Your task to perform on an android device: clear all cookies in the chrome app Image 0: 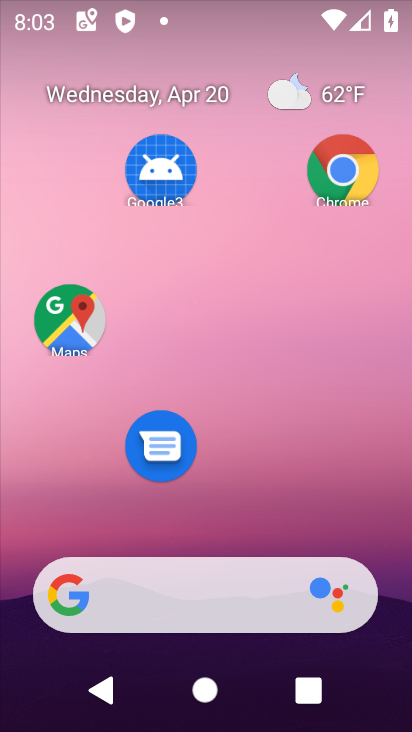
Step 0: click (347, 175)
Your task to perform on an android device: clear all cookies in the chrome app Image 1: 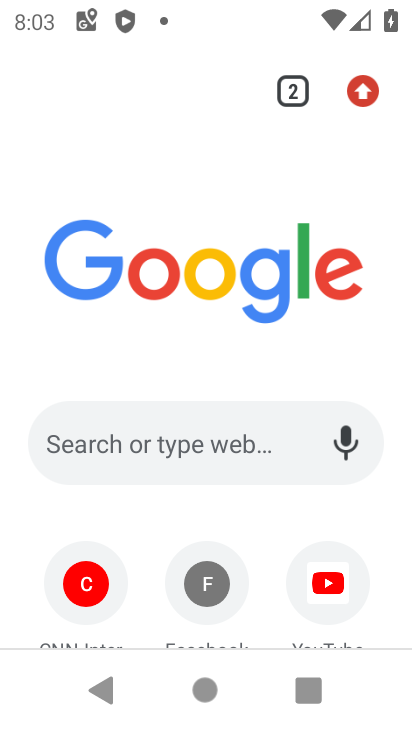
Step 1: click (363, 91)
Your task to perform on an android device: clear all cookies in the chrome app Image 2: 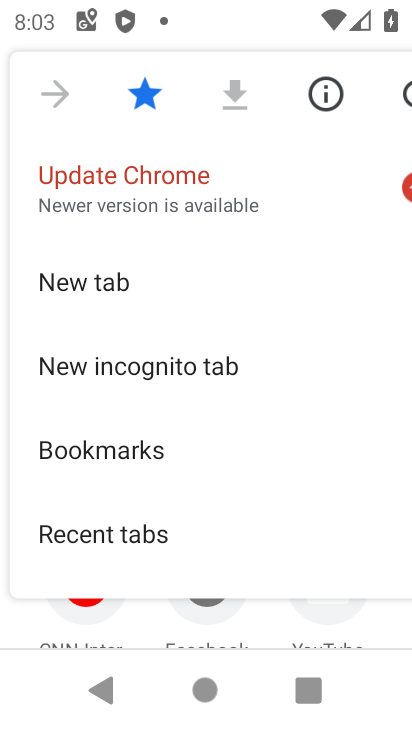
Step 2: drag from (228, 533) to (233, 280)
Your task to perform on an android device: clear all cookies in the chrome app Image 3: 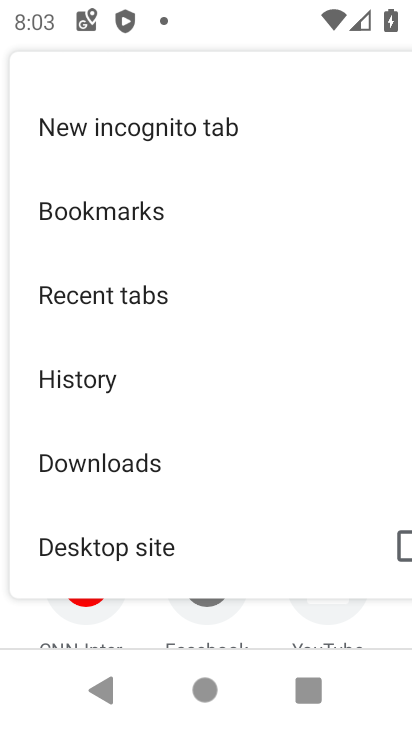
Step 3: drag from (242, 497) to (213, 215)
Your task to perform on an android device: clear all cookies in the chrome app Image 4: 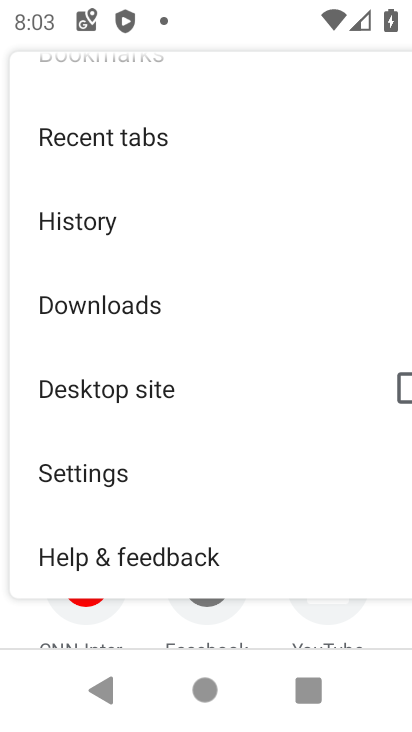
Step 4: click (83, 474)
Your task to perform on an android device: clear all cookies in the chrome app Image 5: 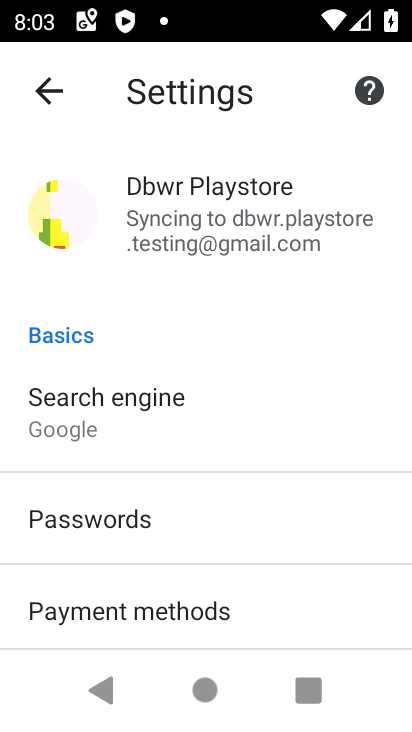
Step 5: drag from (236, 558) to (217, 318)
Your task to perform on an android device: clear all cookies in the chrome app Image 6: 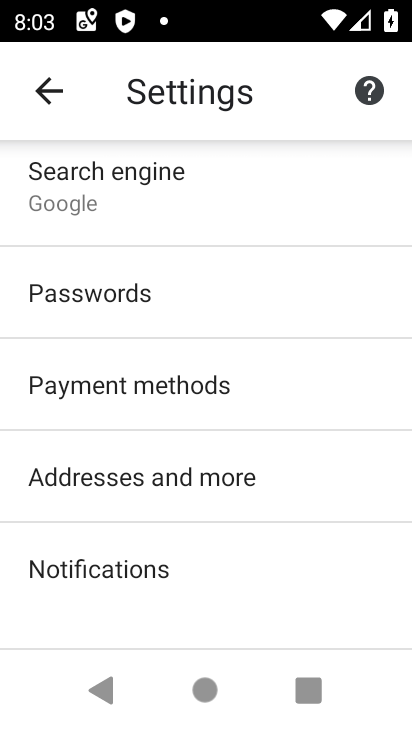
Step 6: drag from (231, 574) to (223, 64)
Your task to perform on an android device: clear all cookies in the chrome app Image 7: 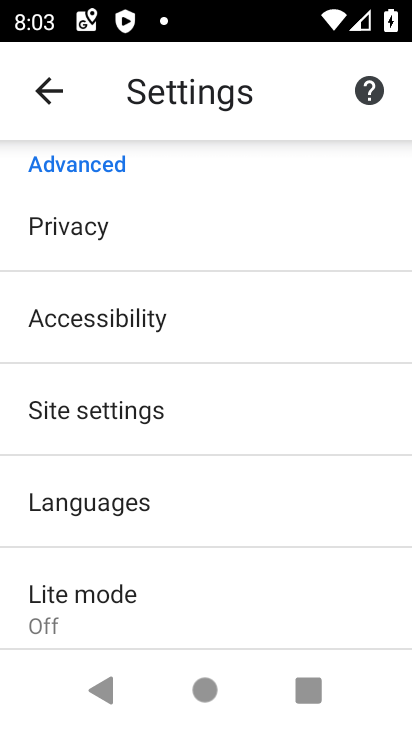
Step 7: click (65, 229)
Your task to perform on an android device: clear all cookies in the chrome app Image 8: 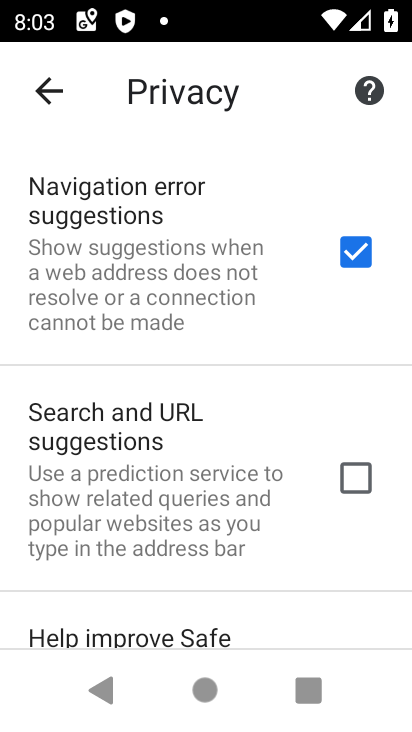
Step 8: drag from (219, 562) to (226, 181)
Your task to perform on an android device: clear all cookies in the chrome app Image 9: 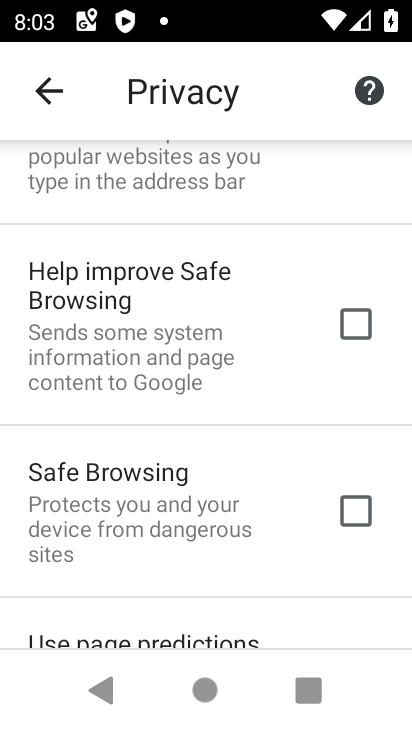
Step 9: drag from (253, 573) to (191, 103)
Your task to perform on an android device: clear all cookies in the chrome app Image 10: 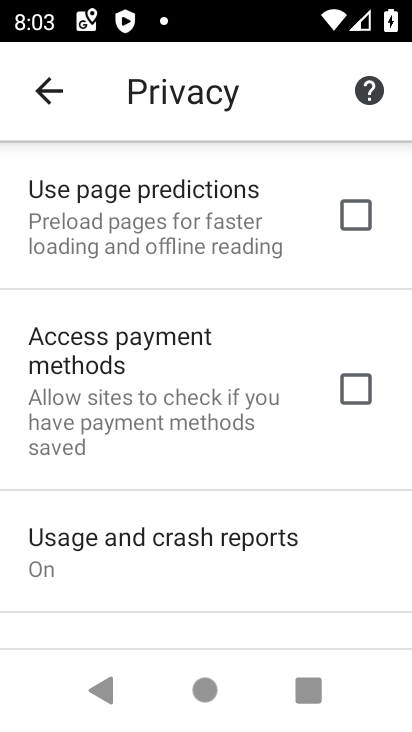
Step 10: drag from (168, 515) to (135, 116)
Your task to perform on an android device: clear all cookies in the chrome app Image 11: 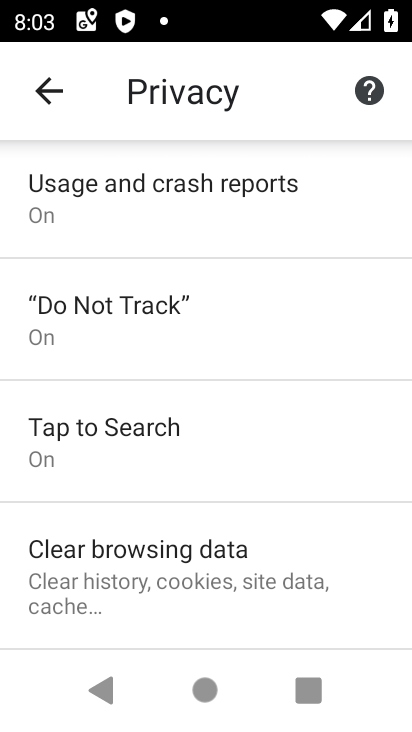
Step 11: click (136, 566)
Your task to perform on an android device: clear all cookies in the chrome app Image 12: 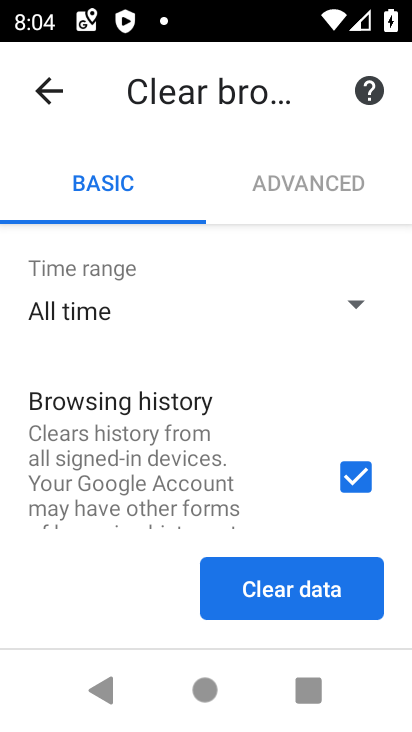
Step 12: drag from (142, 559) to (143, 161)
Your task to perform on an android device: clear all cookies in the chrome app Image 13: 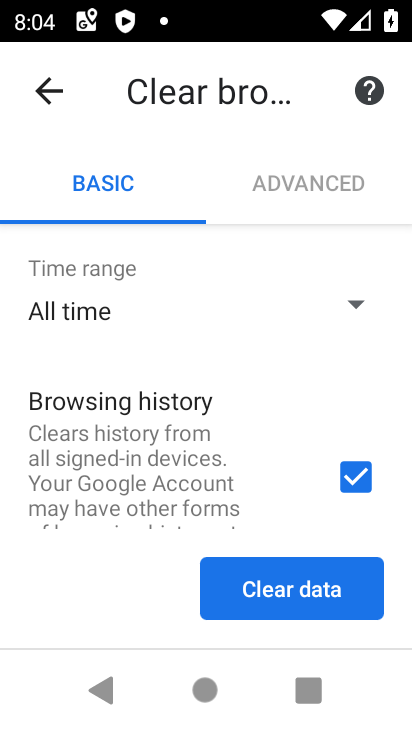
Step 13: click (351, 481)
Your task to perform on an android device: clear all cookies in the chrome app Image 14: 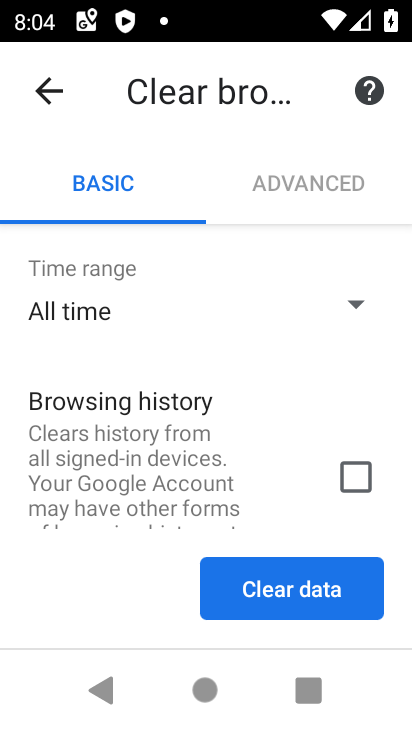
Step 14: drag from (256, 425) to (247, 157)
Your task to perform on an android device: clear all cookies in the chrome app Image 15: 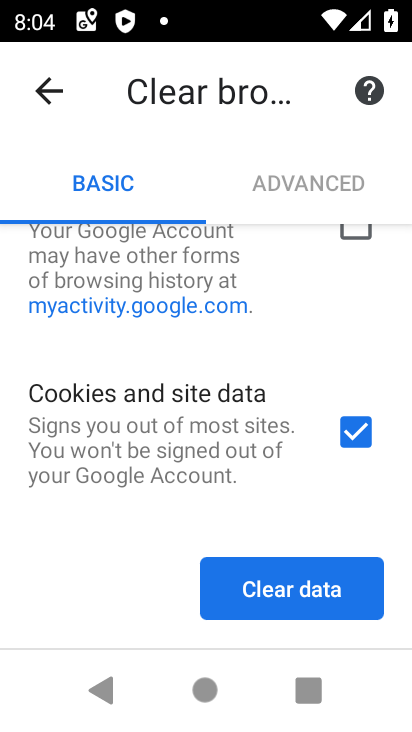
Step 15: click (282, 589)
Your task to perform on an android device: clear all cookies in the chrome app Image 16: 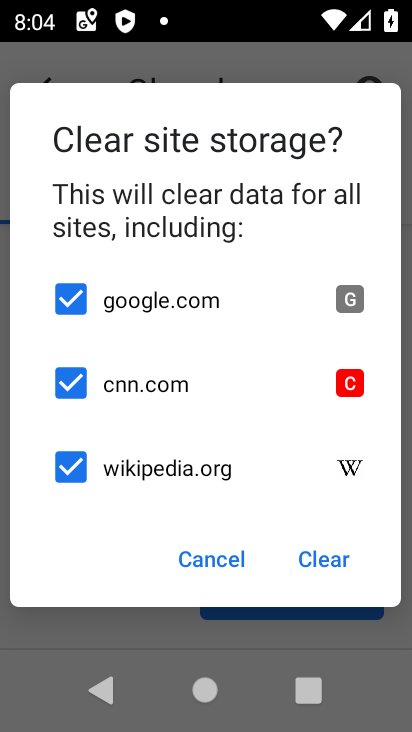
Step 16: click (324, 556)
Your task to perform on an android device: clear all cookies in the chrome app Image 17: 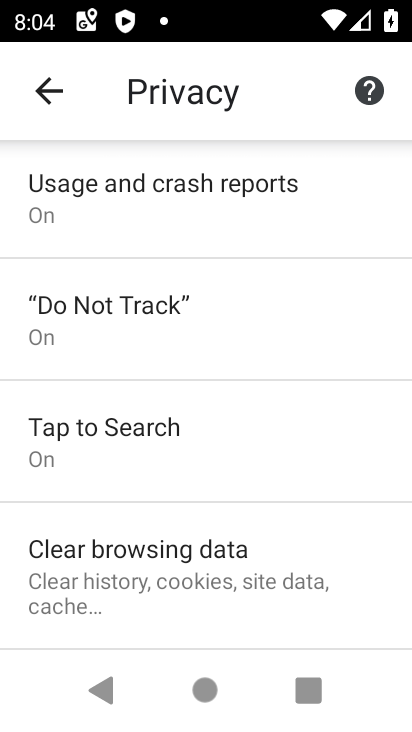
Step 17: task complete